Your task to perform on an android device: remove spam from my inbox in the gmail app Image 0: 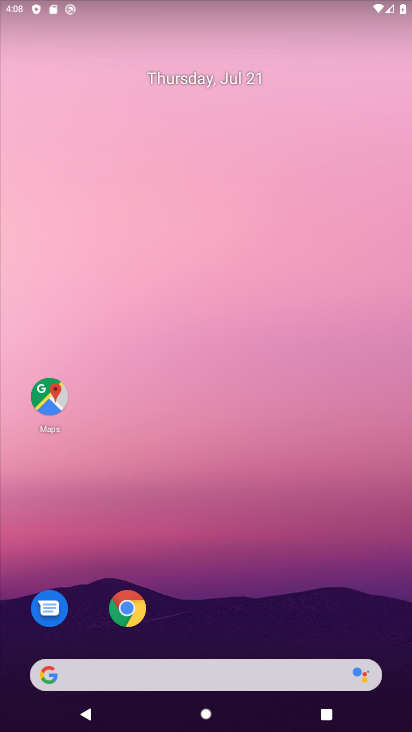
Step 0: drag from (204, 602) to (200, 196)
Your task to perform on an android device: remove spam from my inbox in the gmail app Image 1: 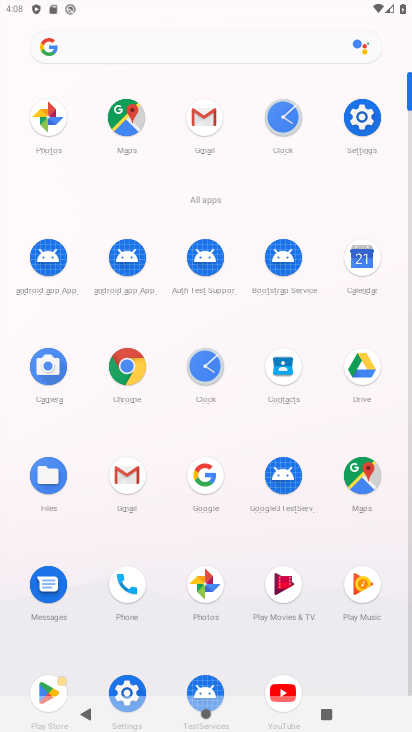
Step 1: click (134, 480)
Your task to perform on an android device: remove spam from my inbox in the gmail app Image 2: 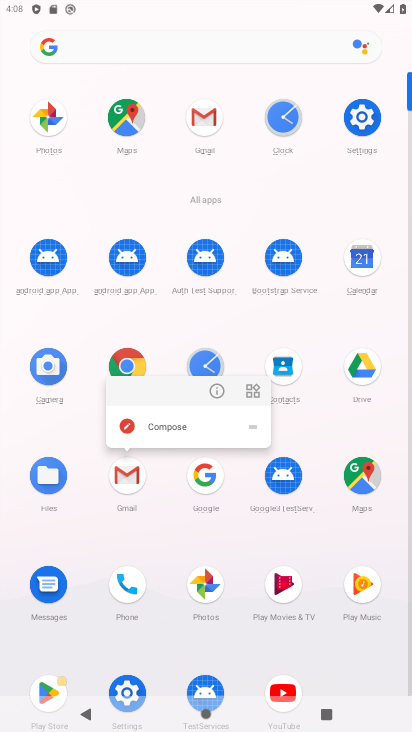
Step 2: click (133, 480)
Your task to perform on an android device: remove spam from my inbox in the gmail app Image 3: 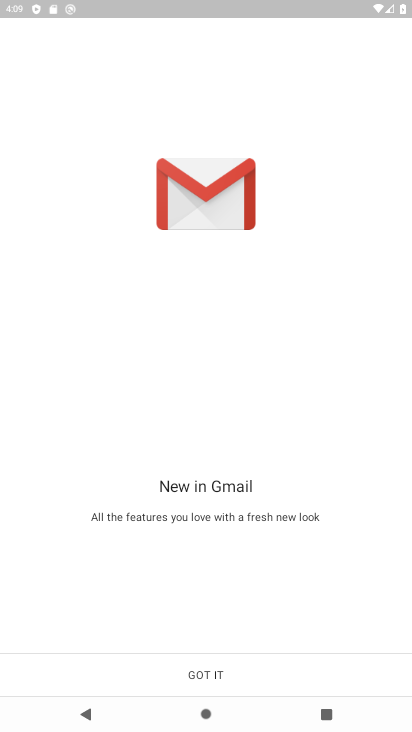
Step 3: click (184, 674)
Your task to perform on an android device: remove spam from my inbox in the gmail app Image 4: 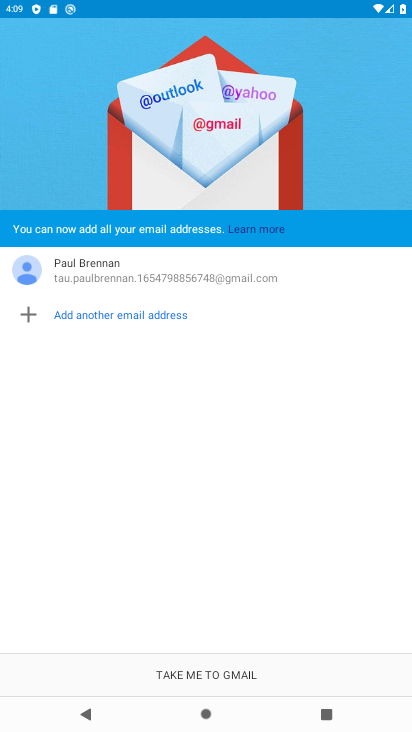
Step 4: click (184, 673)
Your task to perform on an android device: remove spam from my inbox in the gmail app Image 5: 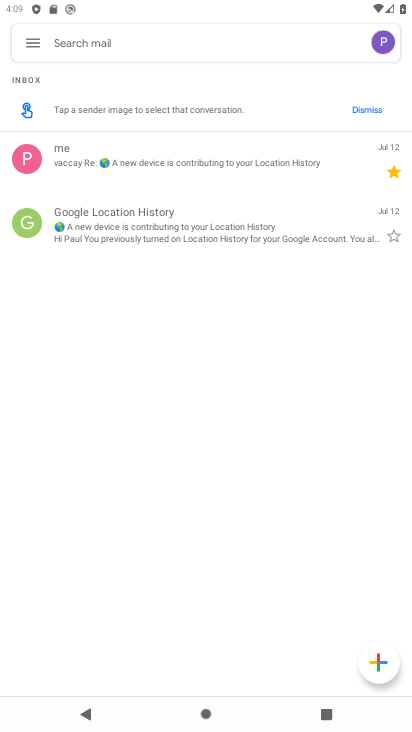
Step 5: click (29, 45)
Your task to perform on an android device: remove spam from my inbox in the gmail app Image 6: 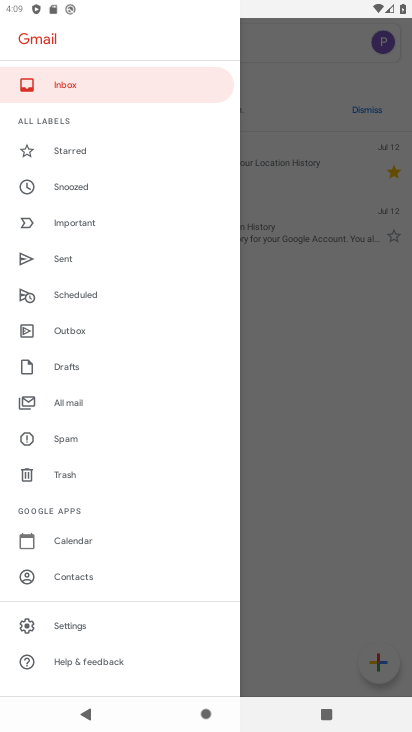
Step 6: click (67, 437)
Your task to perform on an android device: remove spam from my inbox in the gmail app Image 7: 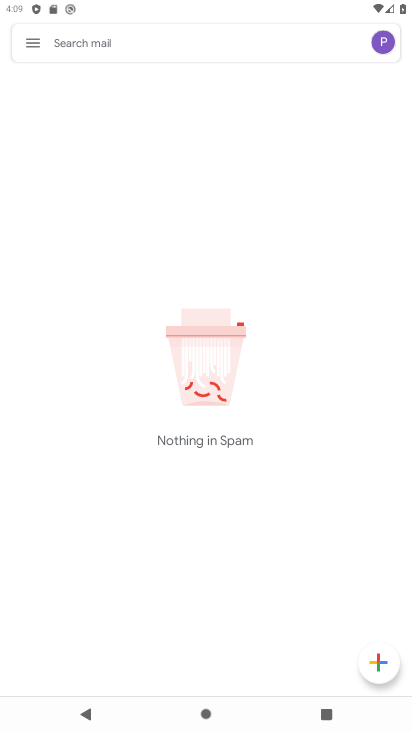
Step 7: task complete